Your task to perform on an android device: Open ESPN.com Image 0: 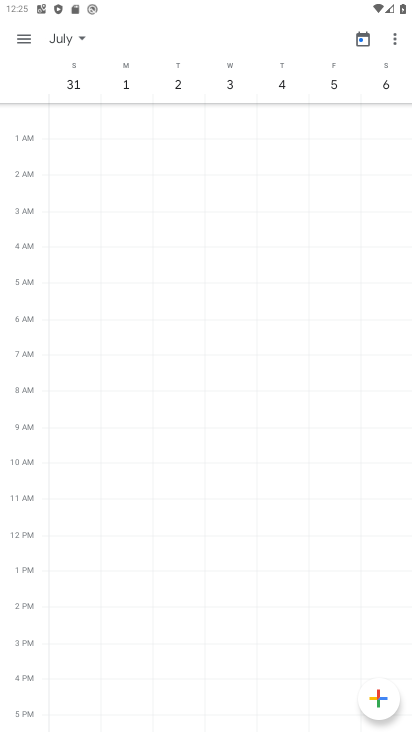
Step 0: press home button
Your task to perform on an android device: Open ESPN.com Image 1: 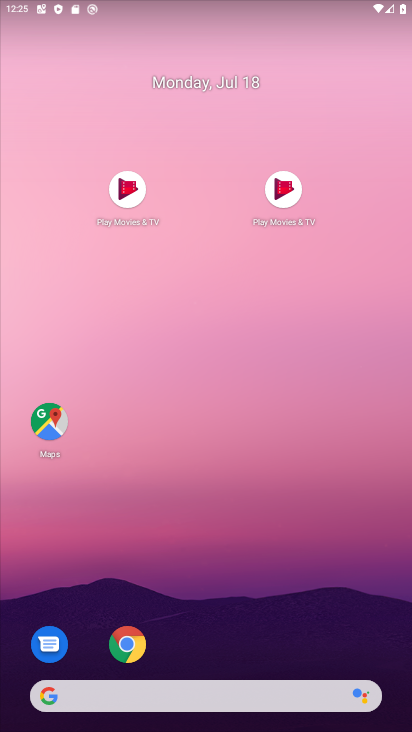
Step 1: drag from (335, 529) to (311, 16)
Your task to perform on an android device: Open ESPN.com Image 2: 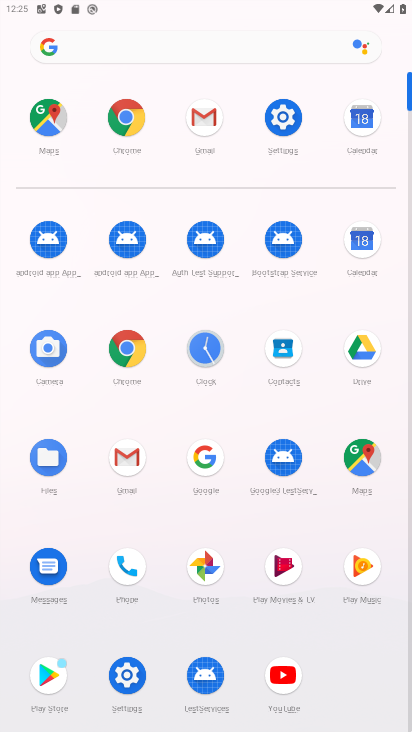
Step 2: click (131, 345)
Your task to perform on an android device: Open ESPN.com Image 3: 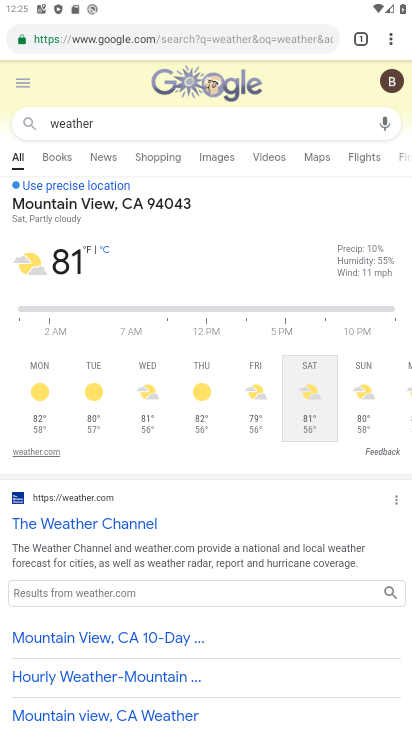
Step 3: click (164, 35)
Your task to perform on an android device: Open ESPN.com Image 4: 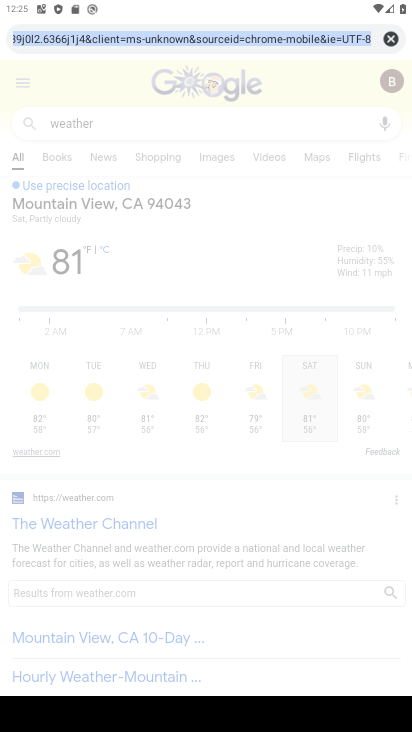
Step 4: type ""
Your task to perform on an android device: Open ESPN.com Image 5: 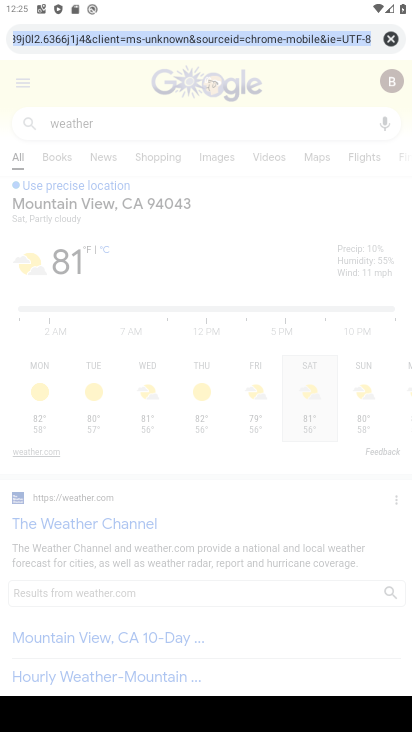
Step 5: type "espn.com"
Your task to perform on an android device: Open ESPN.com Image 6: 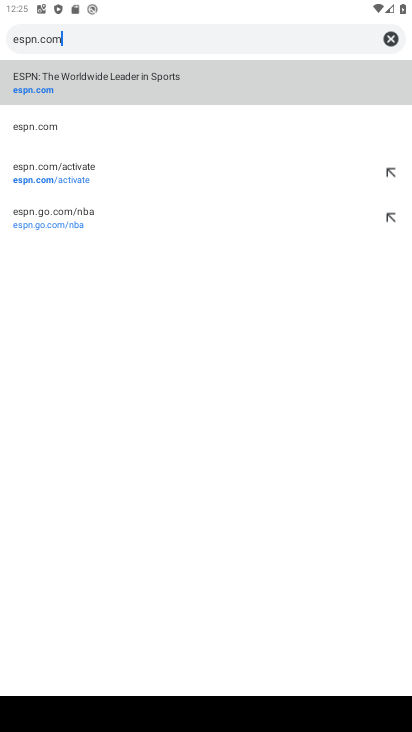
Step 6: click (23, 90)
Your task to perform on an android device: Open ESPN.com Image 7: 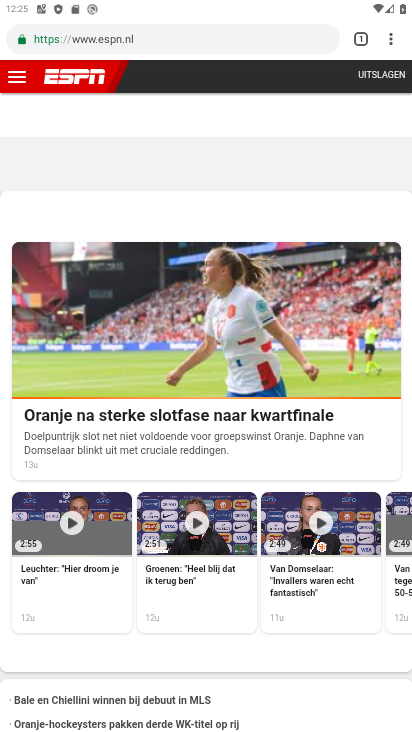
Step 7: task complete